Your task to perform on an android device: turn on wifi Image 0: 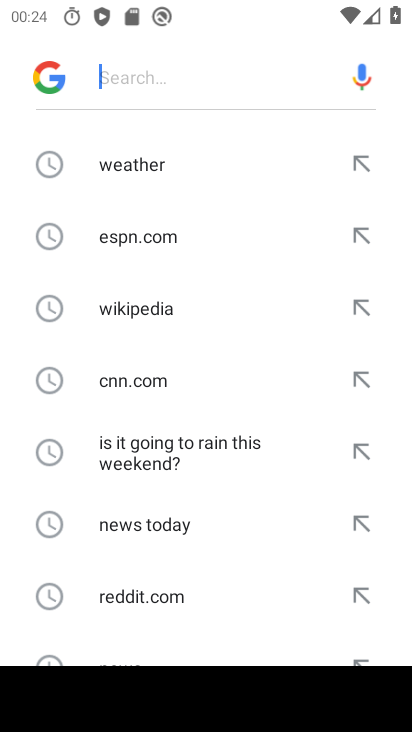
Step 0: press home button
Your task to perform on an android device: turn on wifi Image 1: 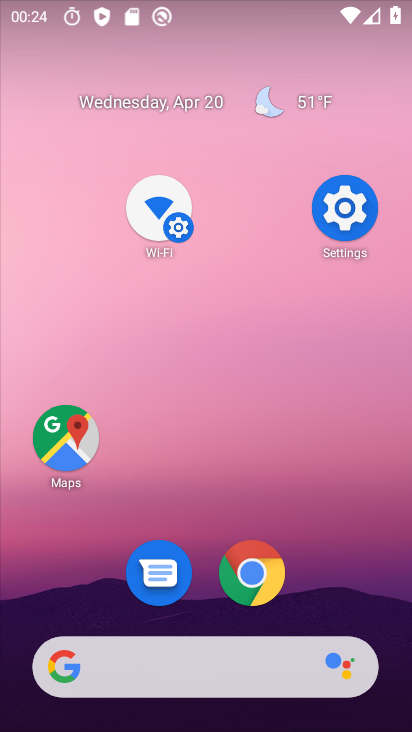
Step 1: click (350, 219)
Your task to perform on an android device: turn on wifi Image 2: 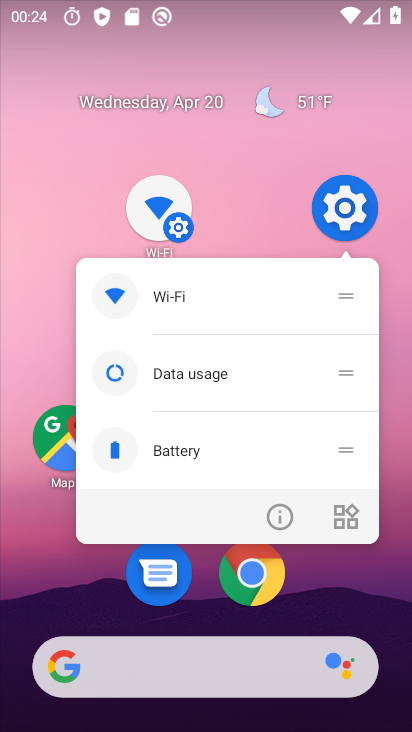
Step 2: click (330, 207)
Your task to perform on an android device: turn on wifi Image 3: 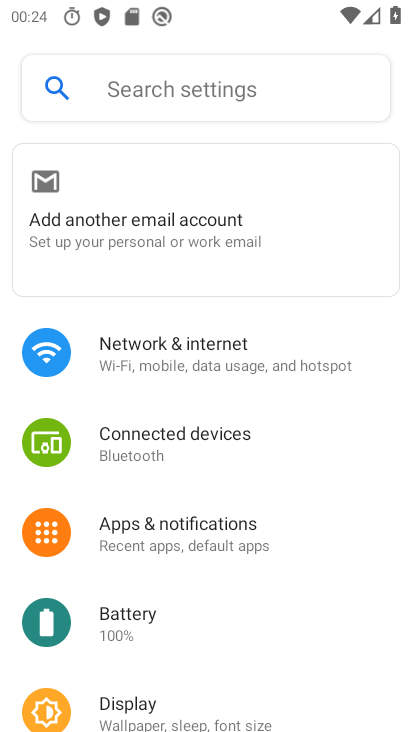
Step 3: click (221, 367)
Your task to perform on an android device: turn on wifi Image 4: 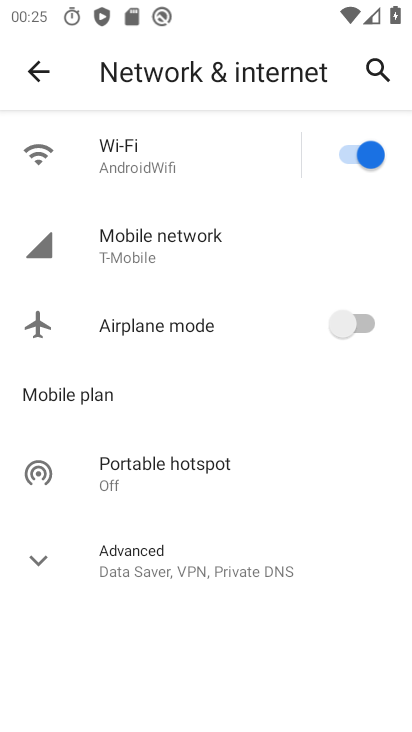
Step 4: task complete